Your task to perform on an android device: toggle improve location accuracy Image 0: 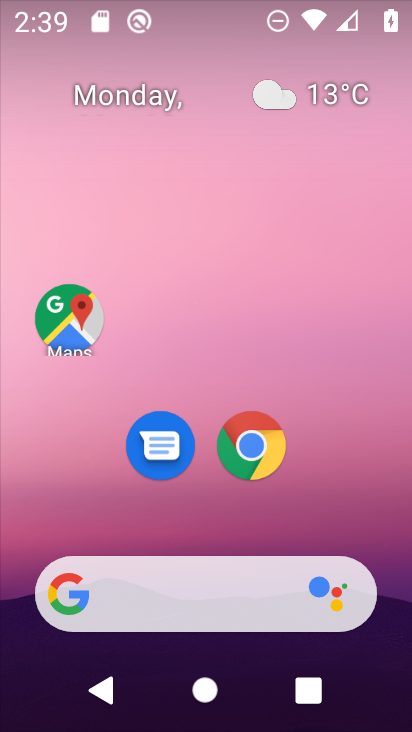
Step 0: drag from (389, 601) to (306, 132)
Your task to perform on an android device: toggle improve location accuracy Image 1: 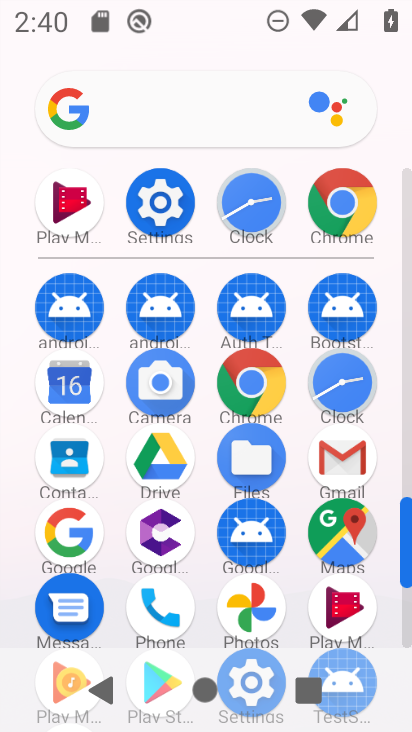
Step 1: click (175, 201)
Your task to perform on an android device: toggle improve location accuracy Image 2: 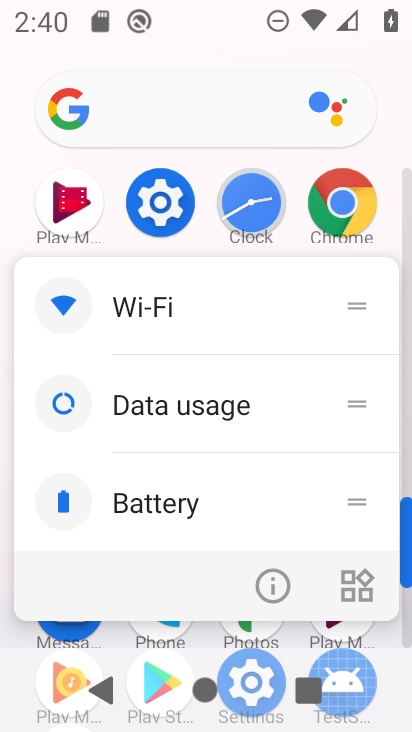
Step 2: click (175, 201)
Your task to perform on an android device: toggle improve location accuracy Image 3: 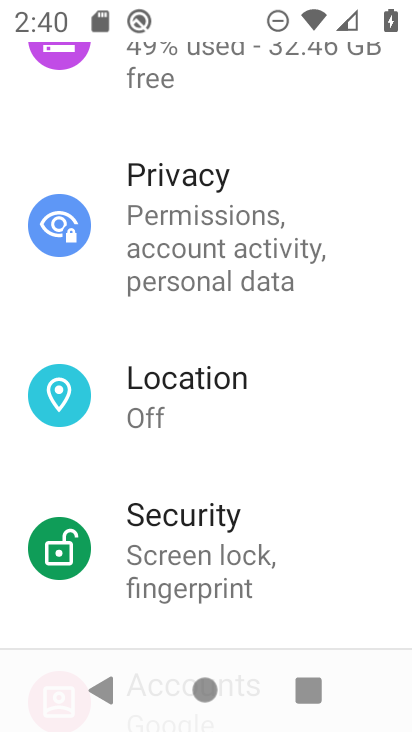
Step 3: click (220, 407)
Your task to perform on an android device: toggle improve location accuracy Image 4: 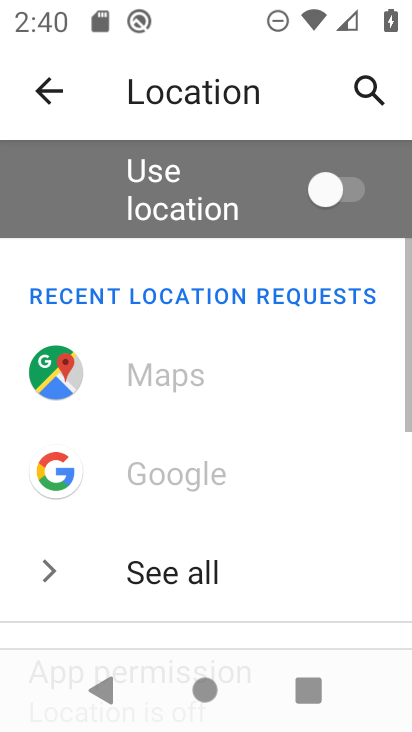
Step 4: drag from (241, 602) to (190, 91)
Your task to perform on an android device: toggle improve location accuracy Image 5: 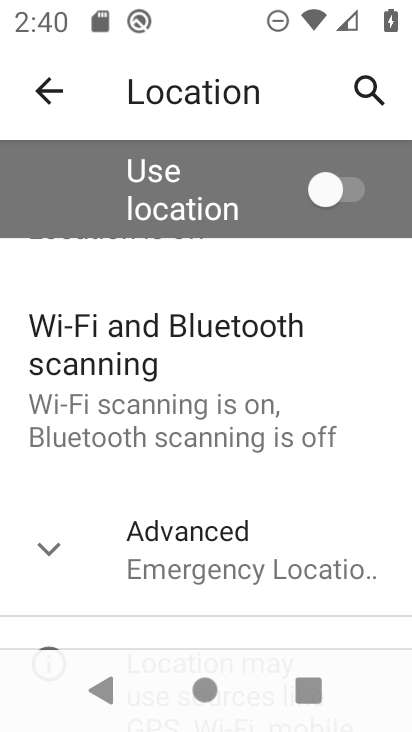
Step 5: drag from (217, 503) to (237, 222)
Your task to perform on an android device: toggle improve location accuracy Image 6: 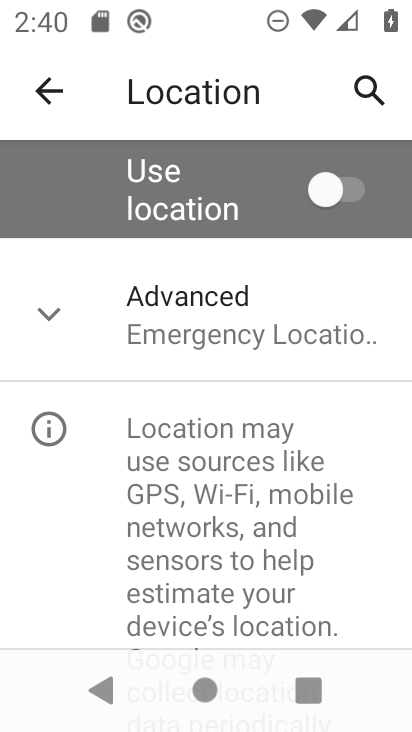
Step 6: click (69, 325)
Your task to perform on an android device: toggle improve location accuracy Image 7: 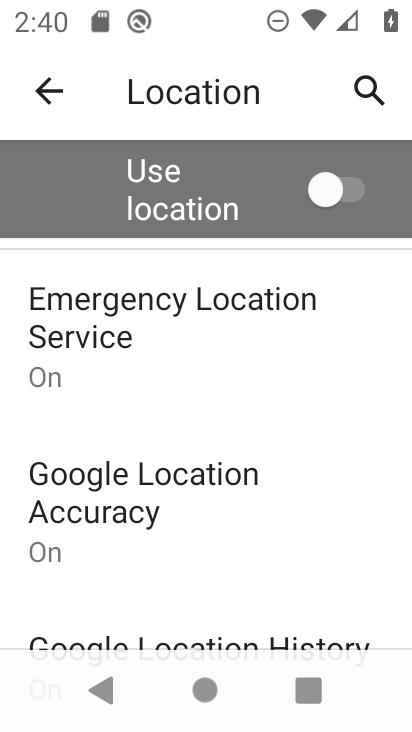
Step 7: click (186, 506)
Your task to perform on an android device: toggle improve location accuracy Image 8: 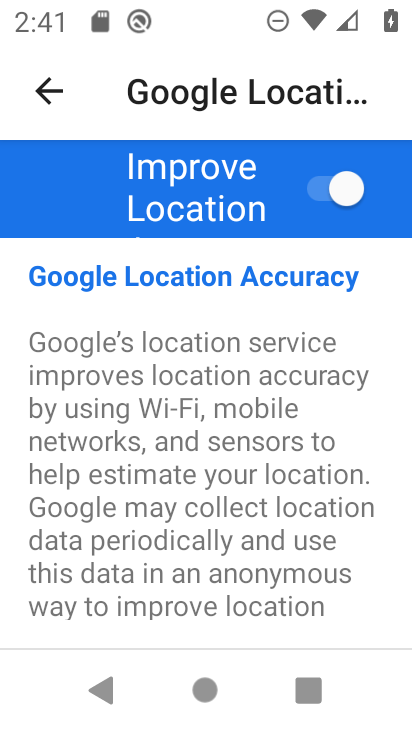
Step 8: click (260, 209)
Your task to perform on an android device: toggle improve location accuracy Image 9: 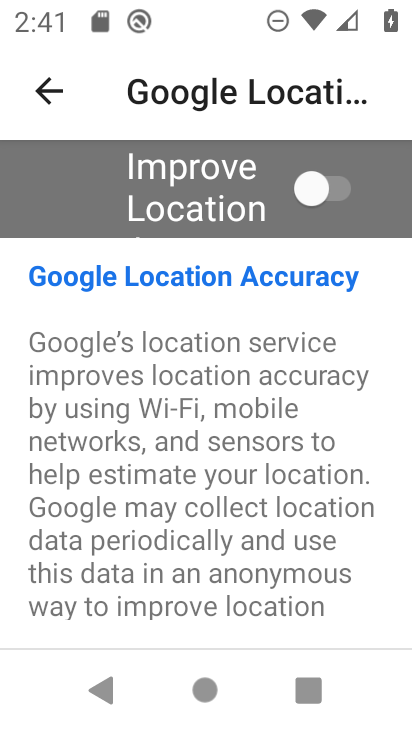
Step 9: task complete